Your task to perform on an android device: Open Android settings Image 0: 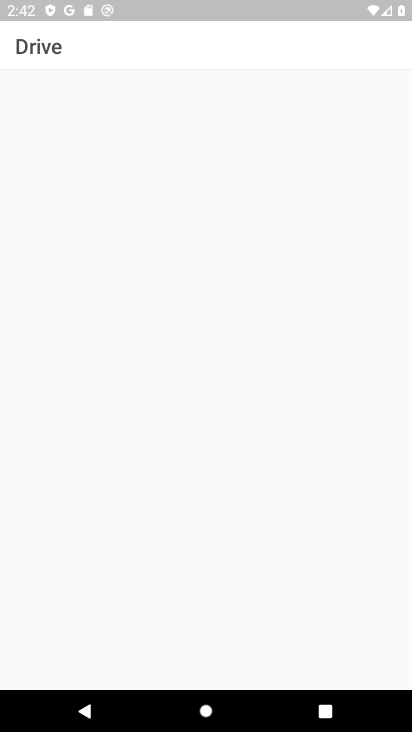
Step 0: press home button
Your task to perform on an android device: Open Android settings Image 1: 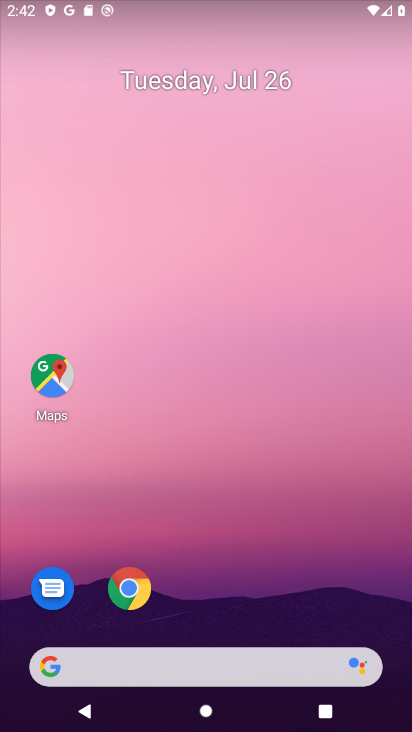
Step 1: drag from (250, 611) to (249, 100)
Your task to perform on an android device: Open Android settings Image 2: 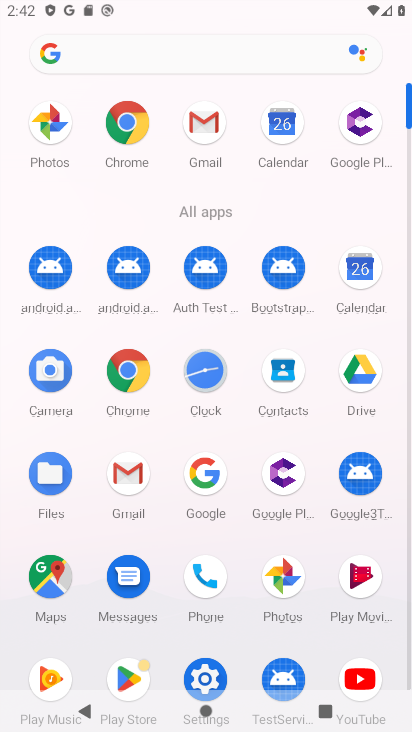
Step 2: click (210, 668)
Your task to perform on an android device: Open Android settings Image 3: 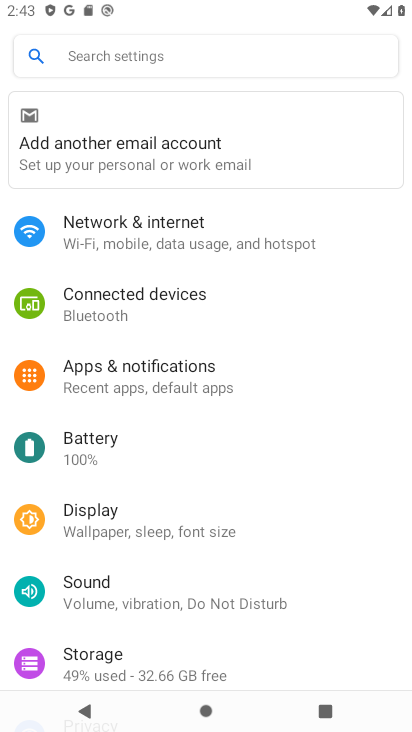
Step 3: task complete